Your task to perform on an android device: Open the Play Movies app and select the watchlist tab. Image 0: 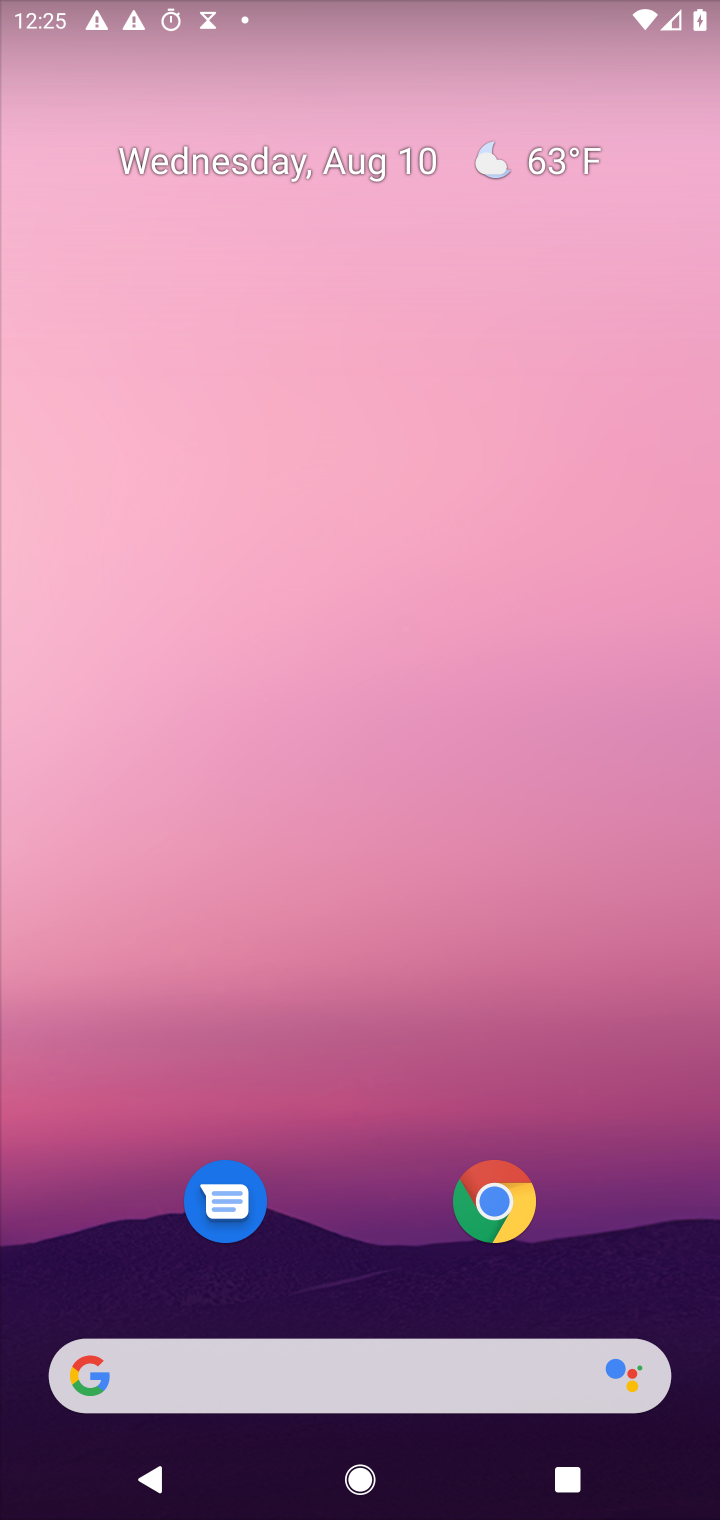
Step 0: press home button
Your task to perform on an android device: Open the Play Movies app and select the watchlist tab. Image 1: 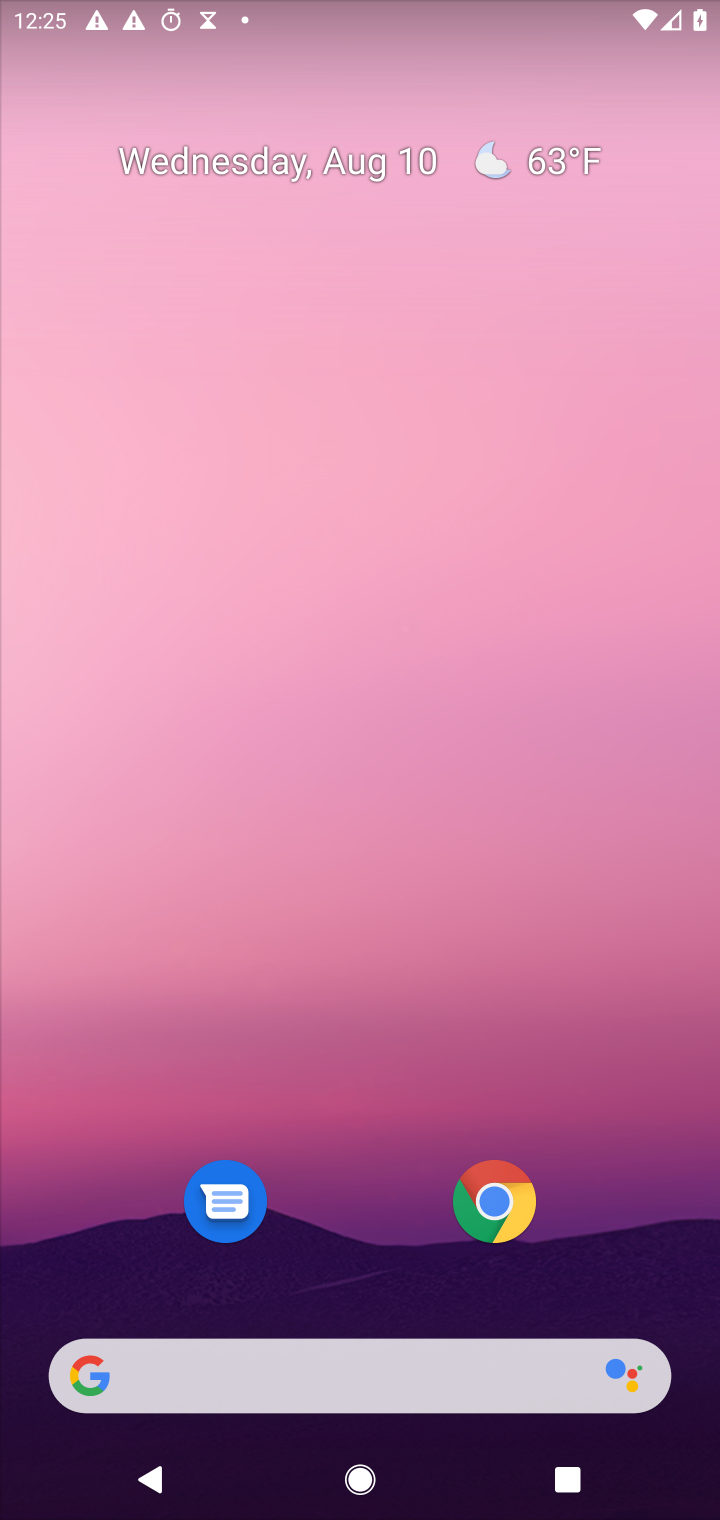
Step 1: drag from (366, 1252) to (411, 172)
Your task to perform on an android device: Open the Play Movies app and select the watchlist tab. Image 2: 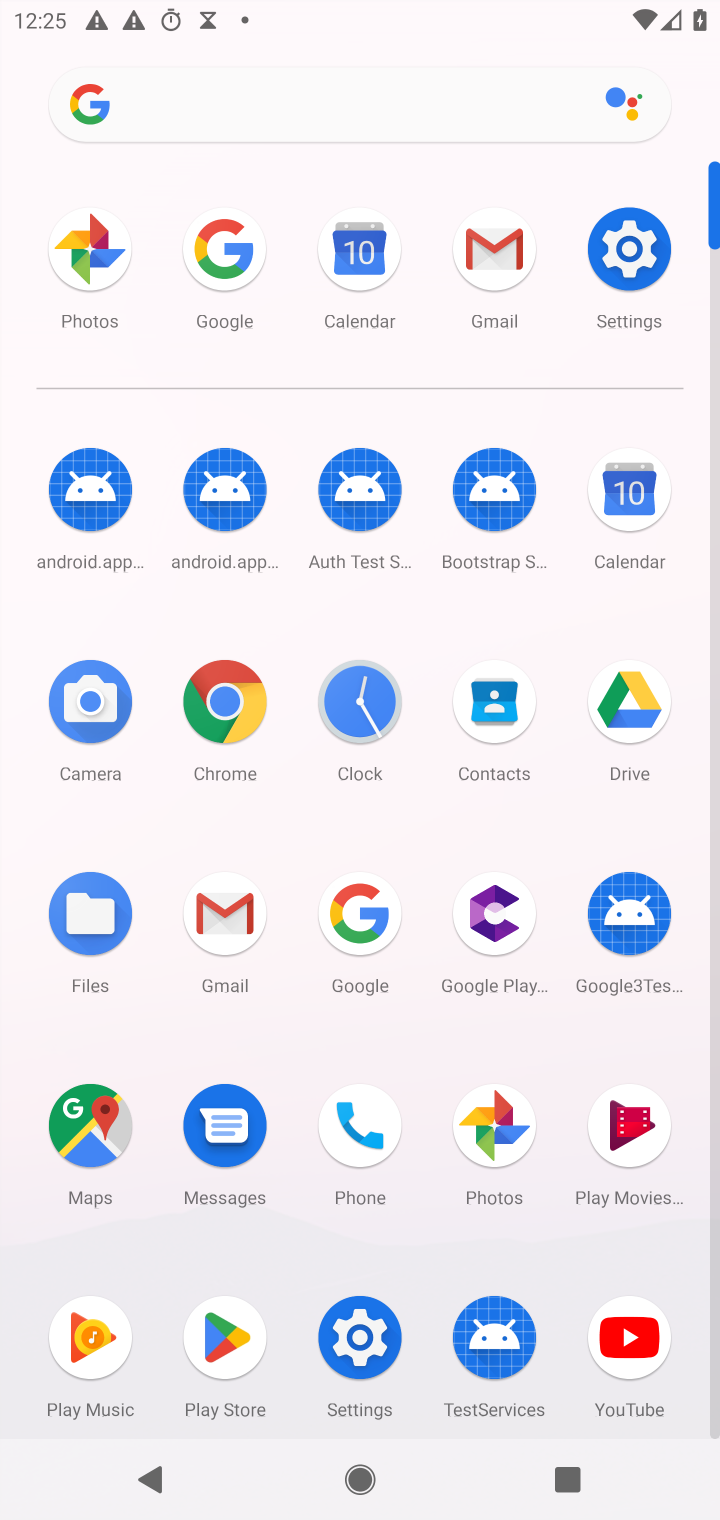
Step 2: click (625, 1120)
Your task to perform on an android device: Open the Play Movies app and select the watchlist tab. Image 3: 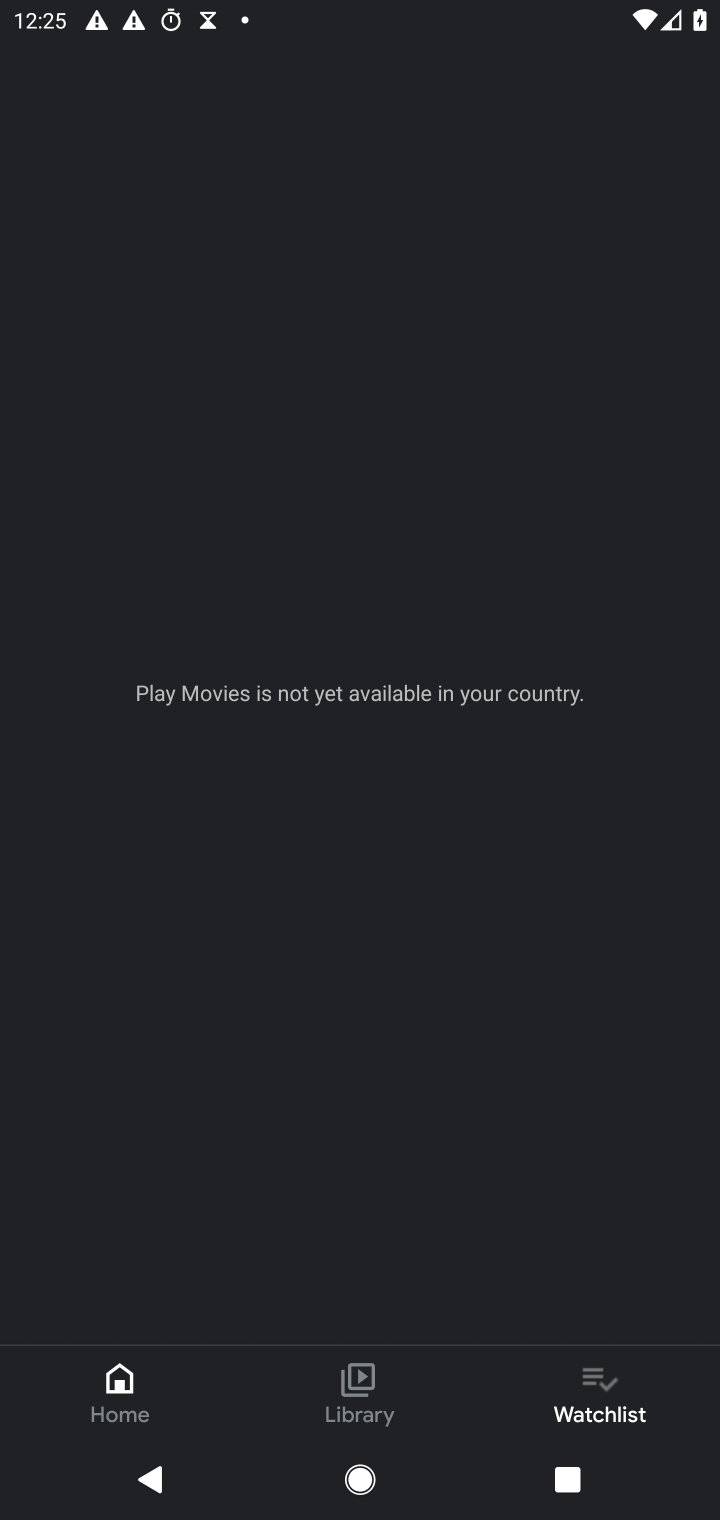
Step 3: click (592, 1389)
Your task to perform on an android device: Open the Play Movies app and select the watchlist tab. Image 4: 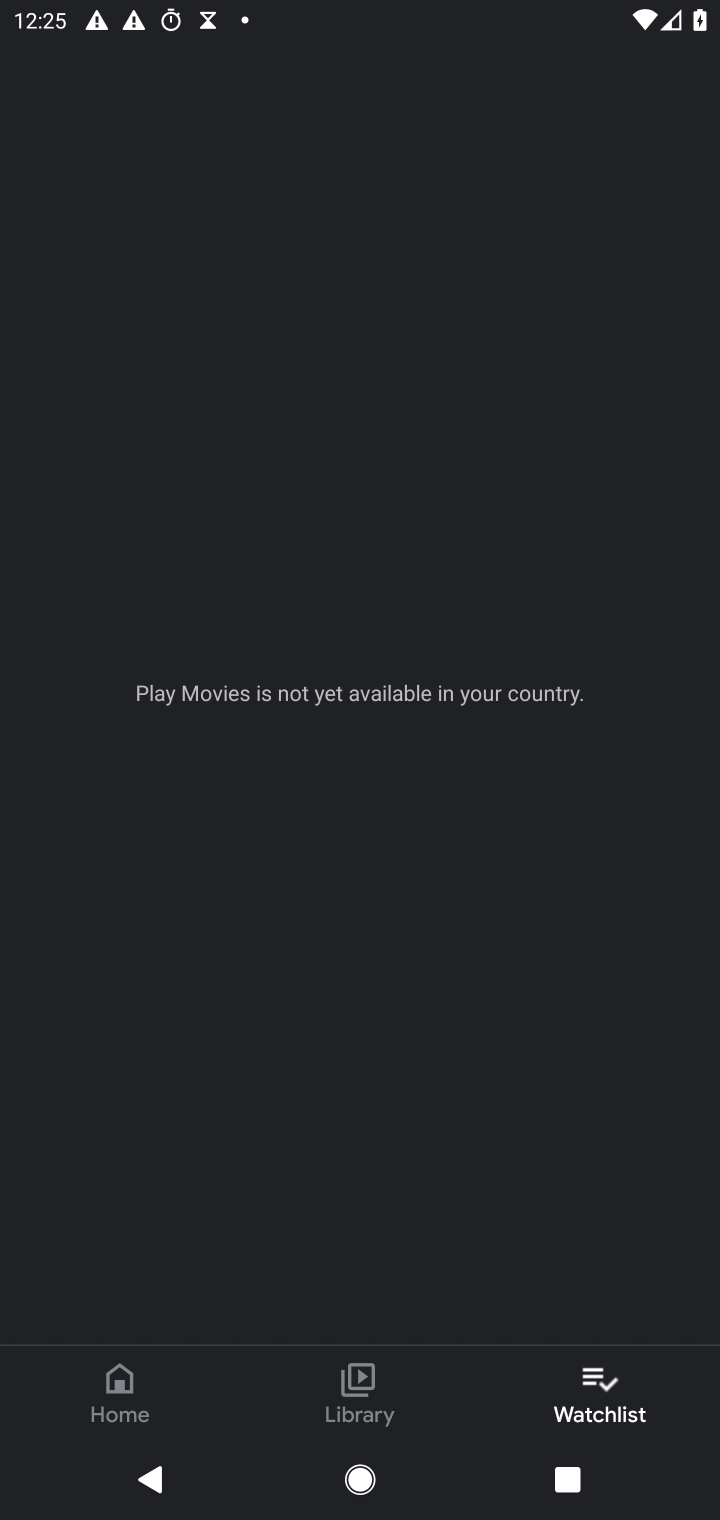
Step 4: task complete